Your task to perform on an android device: delete browsing data in the chrome app Image 0: 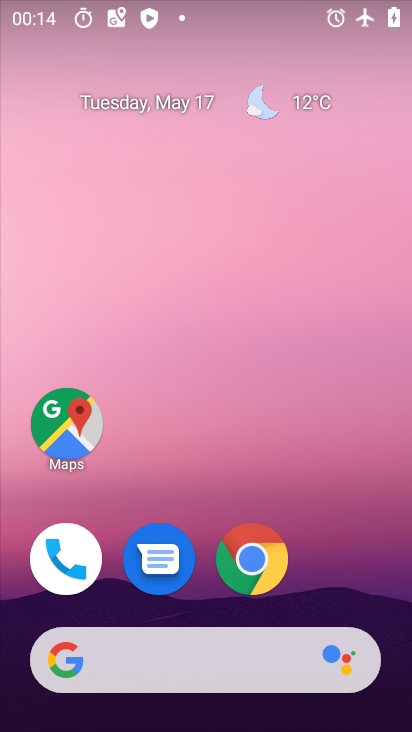
Step 0: click (258, 559)
Your task to perform on an android device: delete browsing data in the chrome app Image 1: 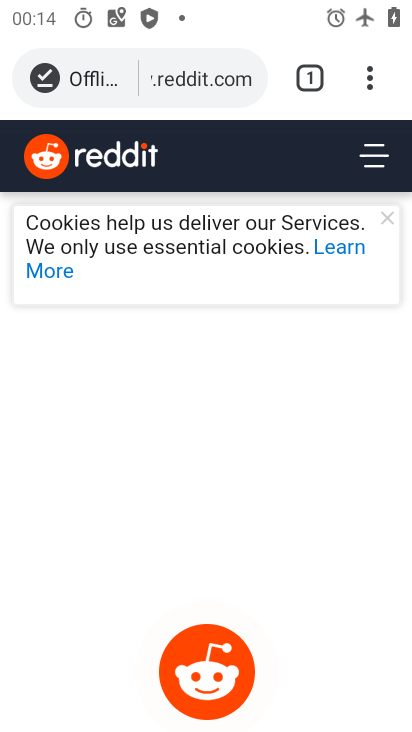
Step 1: drag from (370, 72) to (128, 420)
Your task to perform on an android device: delete browsing data in the chrome app Image 2: 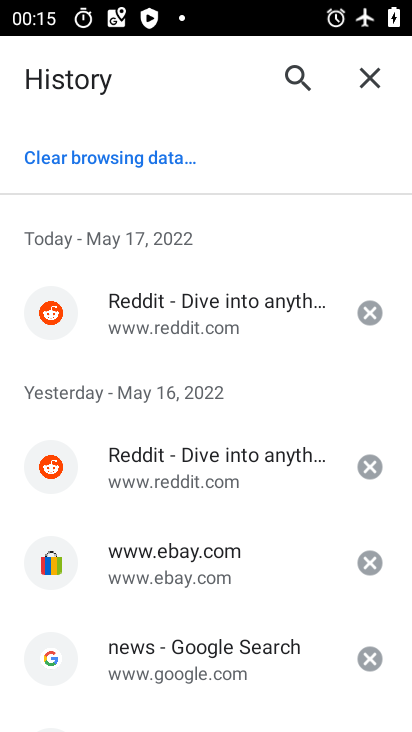
Step 2: click (103, 156)
Your task to perform on an android device: delete browsing data in the chrome app Image 3: 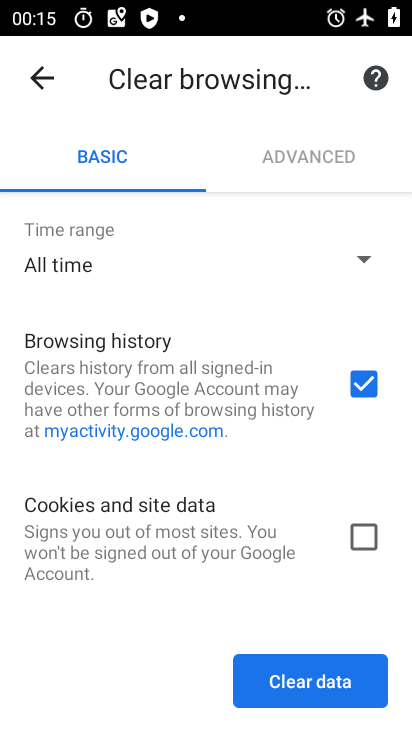
Step 3: click (324, 684)
Your task to perform on an android device: delete browsing data in the chrome app Image 4: 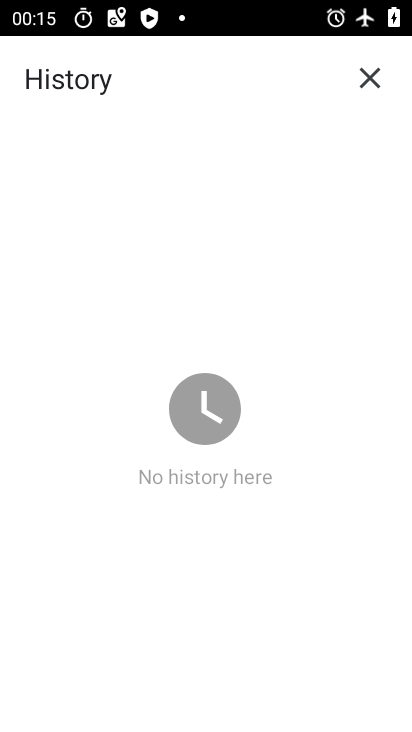
Step 4: task complete